Your task to perform on an android device: create a new album in the google photos Image 0: 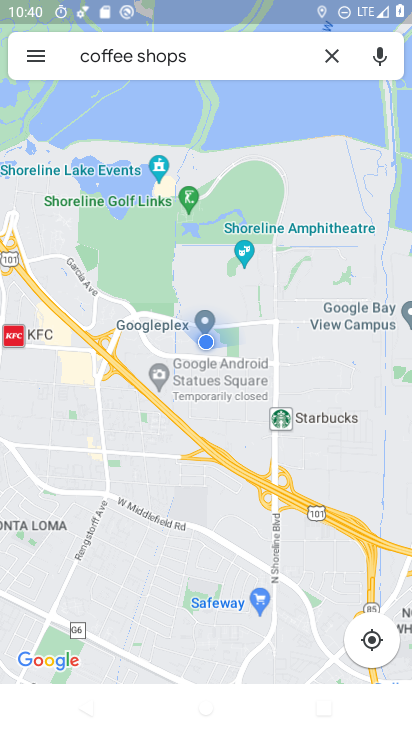
Step 0: press home button
Your task to perform on an android device: create a new album in the google photos Image 1: 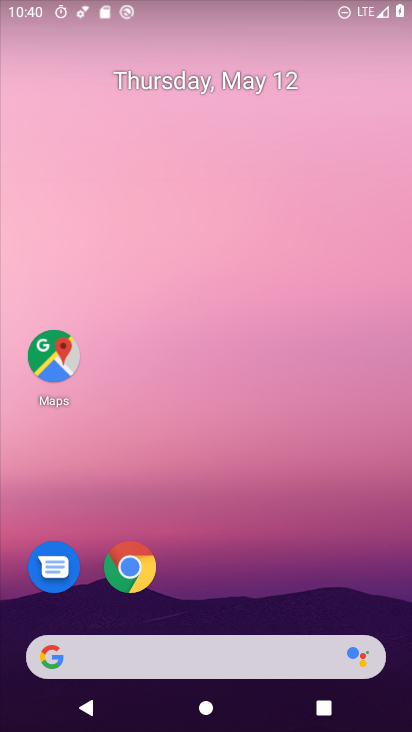
Step 1: drag from (233, 551) to (261, 234)
Your task to perform on an android device: create a new album in the google photos Image 2: 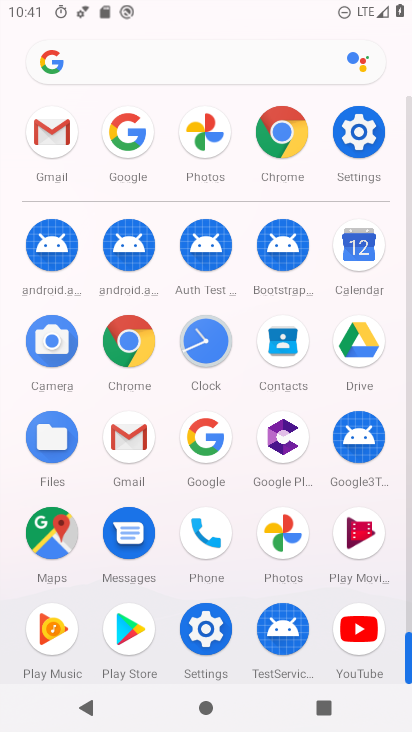
Step 2: click (273, 540)
Your task to perform on an android device: create a new album in the google photos Image 3: 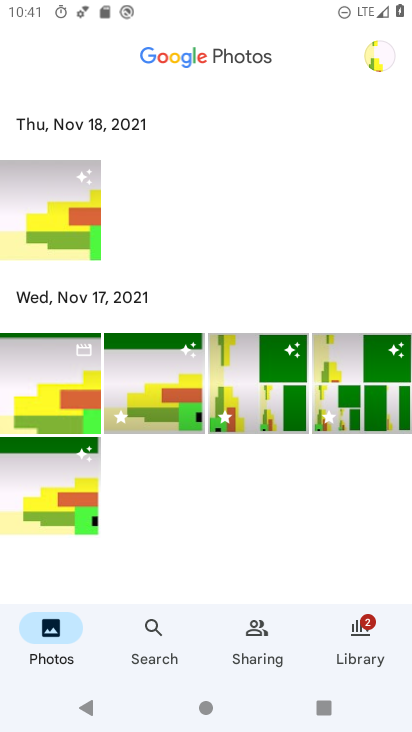
Step 3: click (203, 642)
Your task to perform on an android device: create a new album in the google photos Image 4: 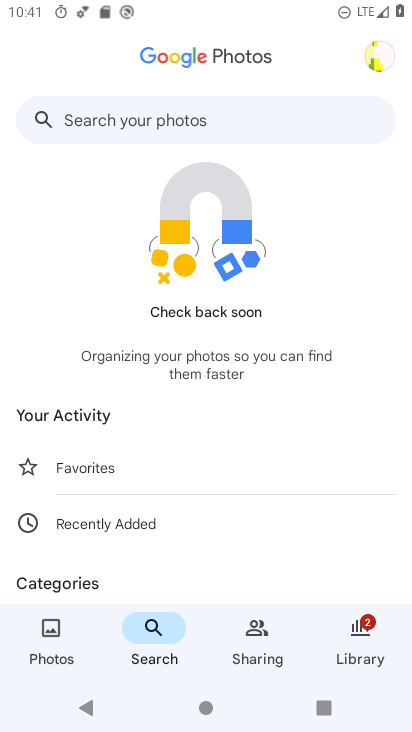
Step 4: click (390, 636)
Your task to perform on an android device: create a new album in the google photos Image 5: 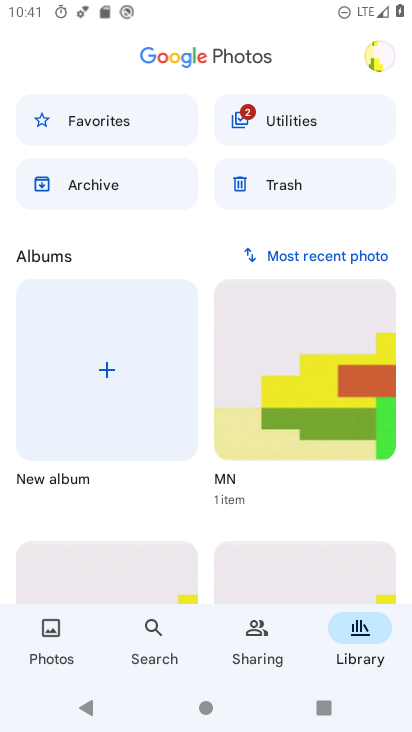
Step 5: click (110, 341)
Your task to perform on an android device: create a new album in the google photos Image 6: 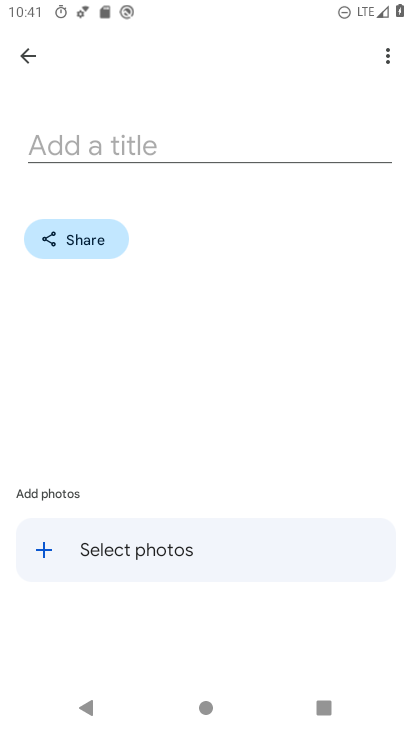
Step 6: click (68, 152)
Your task to perform on an android device: create a new album in the google photos Image 7: 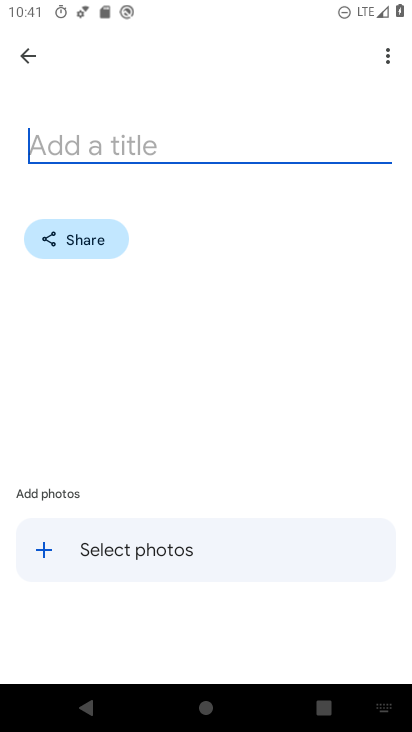
Step 7: type "kno"
Your task to perform on an android device: create a new album in the google photos Image 8: 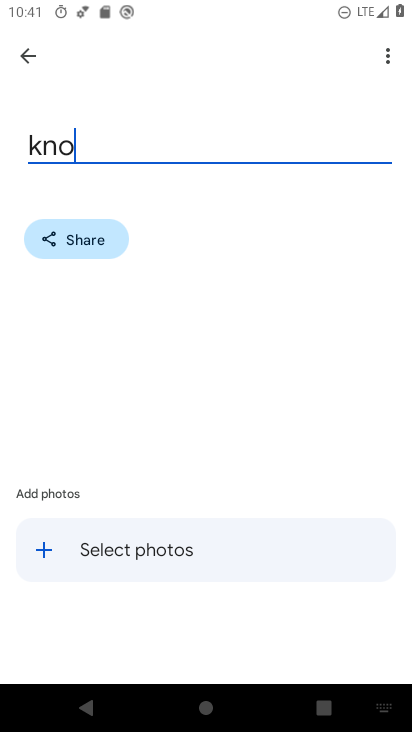
Step 8: click (55, 551)
Your task to perform on an android device: create a new album in the google photos Image 9: 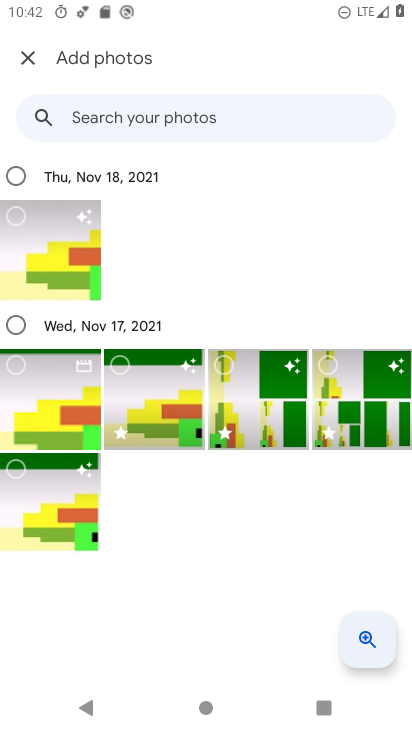
Step 9: click (60, 374)
Your task to perform on an android device: create a new album in the google photos Image 10: 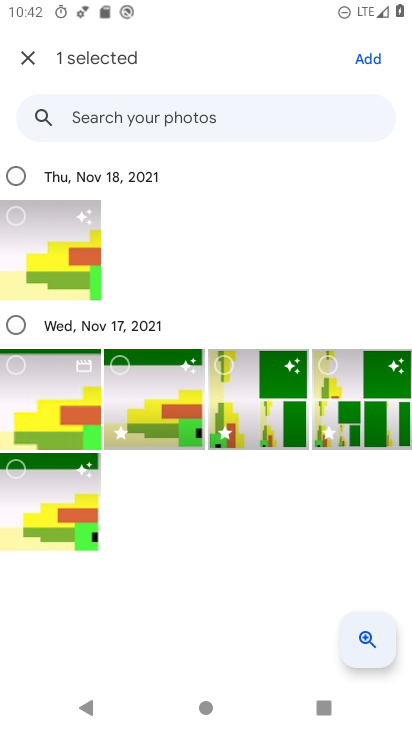
Step 10: click (167, 380)
Your task to perform on an android device: create a new album in the google photos Image 11: 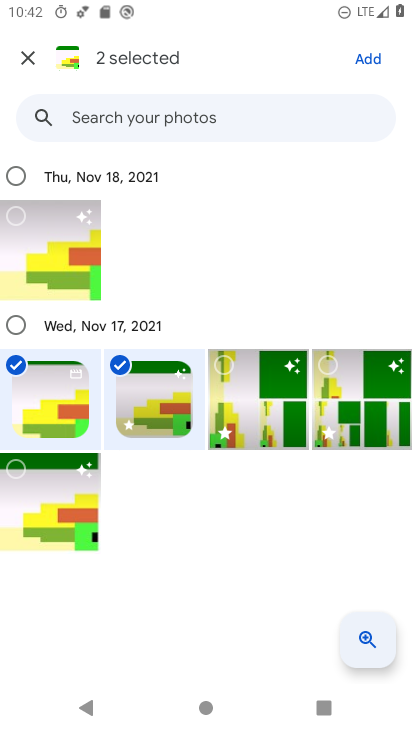
Step 11: click (359, 68)
Your task to perform on an android device: create a new album in the google photos Image 12: 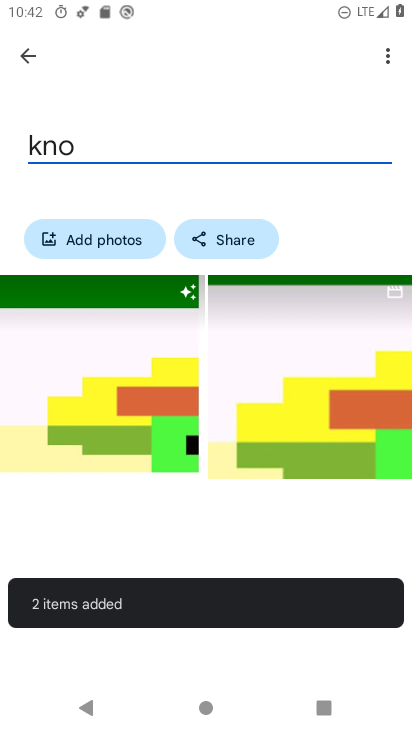
Step 12: task complete